Your task to perform on an android device: Open Google Image 0: 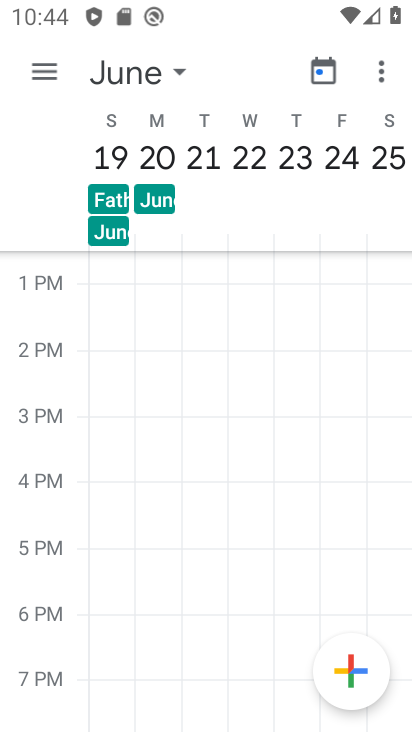
Step 0: press home button
Your task to perform on an android device: Open Google Image 1: 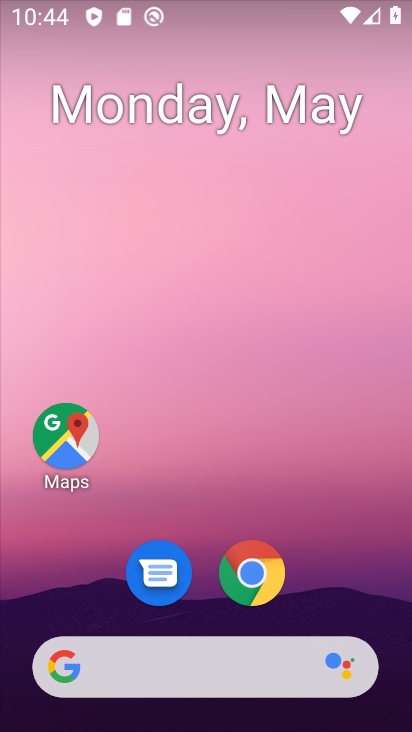
Step 1: drag from (339, 489) to (233, 45)
Your task to perform on an android device: Open Google Image 2: 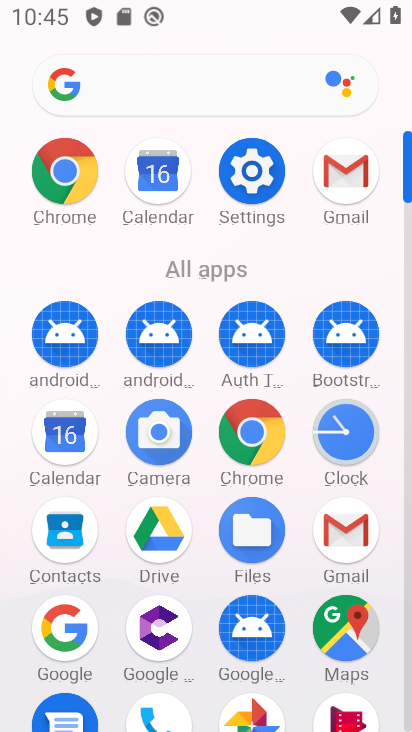
Step 2: click (72, 632)
Your task to perform on an android device: Open Google Image 3: 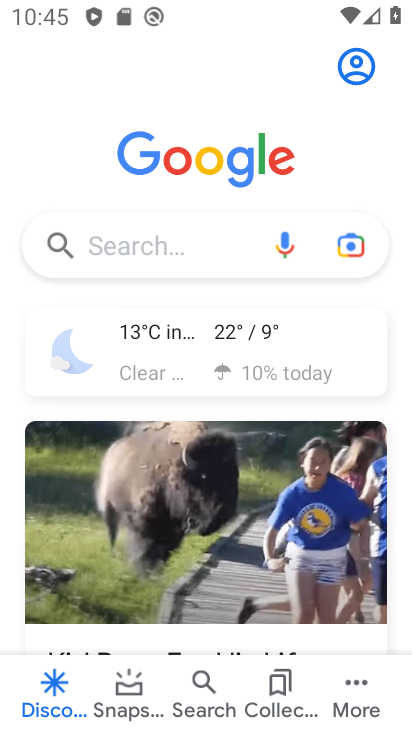
Step 3: task complete